Your task to perform on an android device: Do I have any events this weekend? Image 0: 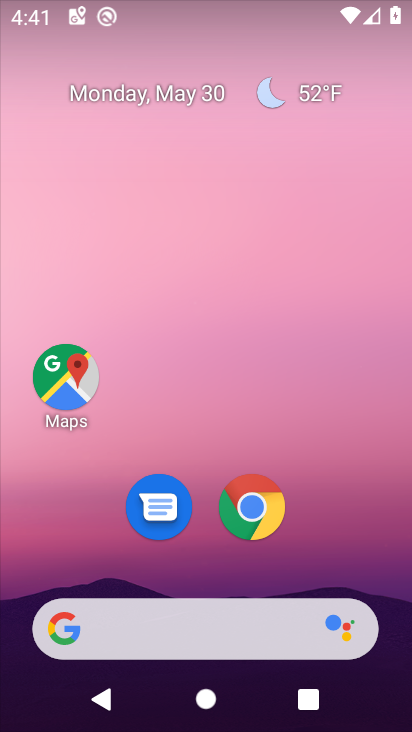
Step 0: press home button
Your task to perform on an android device: Do I have any events this weekend? Image 1: 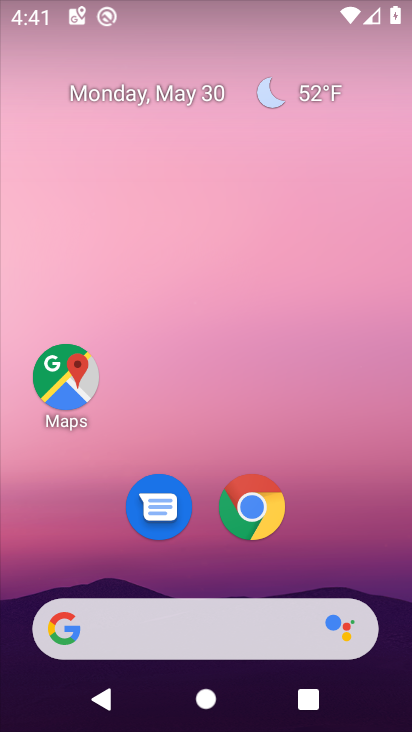
Step 1: drag from (398, 588) to (316, 7)
Your task to perform on an android device: Do I have any events this weekend? Image 2: 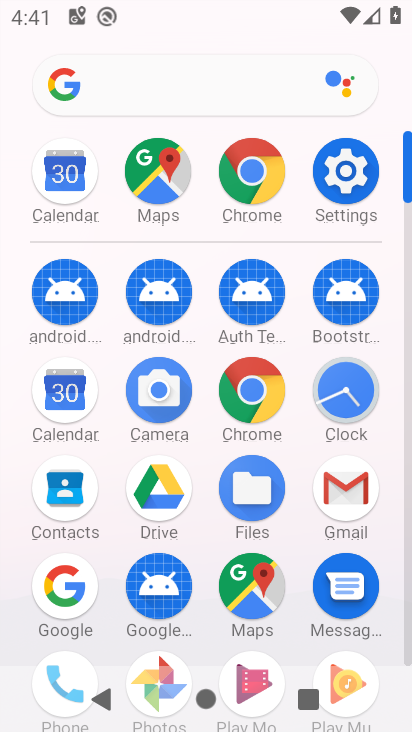
Step 2: click (66, 408)
Your task to perform on an android device: Do I have any events this weekend? Image 3: 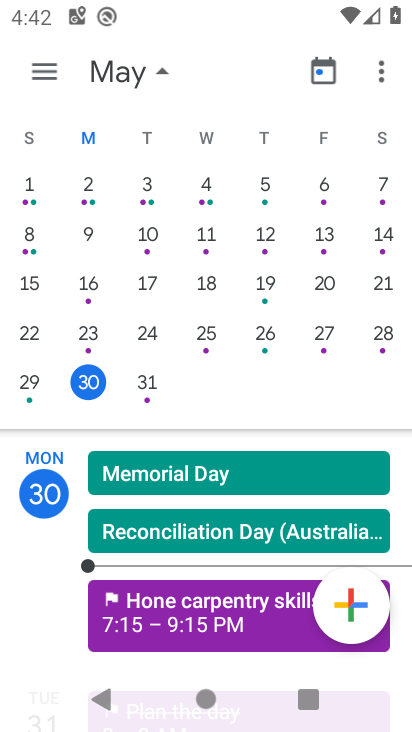
Step 3: click (173, 61)
Your task to perform on an android device: Do I have any events this weekend? Image 4: 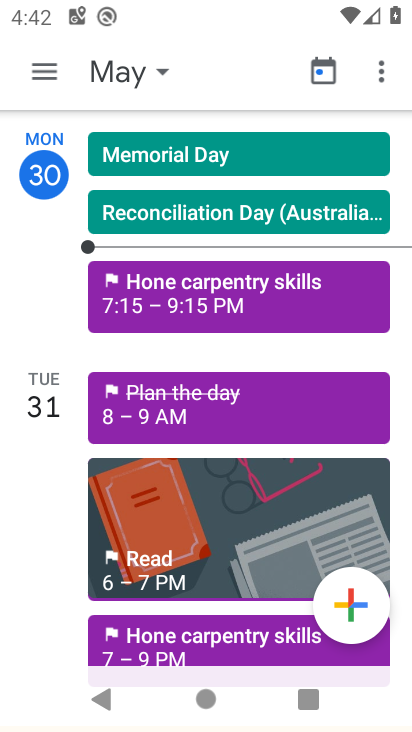
Step 4: task complete